Your task to perform on an android device: Open Reddit.com Image 0: 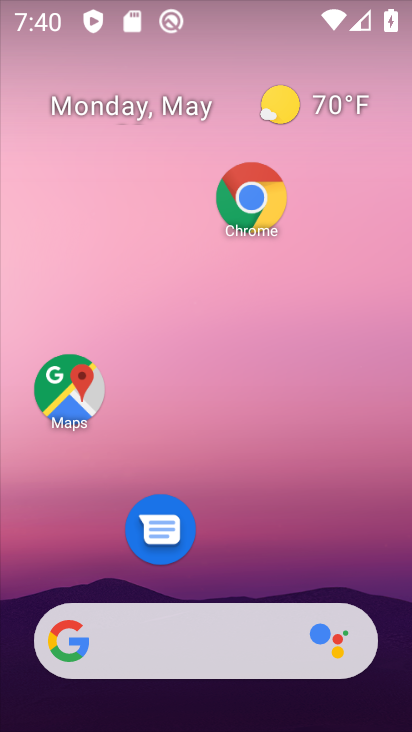
Step 0: click (242, 194)
Your task to perform on an android device: Open Reddit.com Image 1: 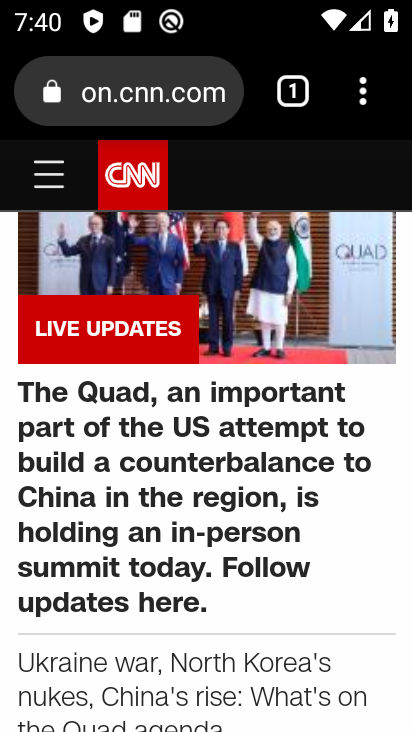
Step 1: click (284, 82)
Your task to perform on an android device: Open Reddit.com Image 2: 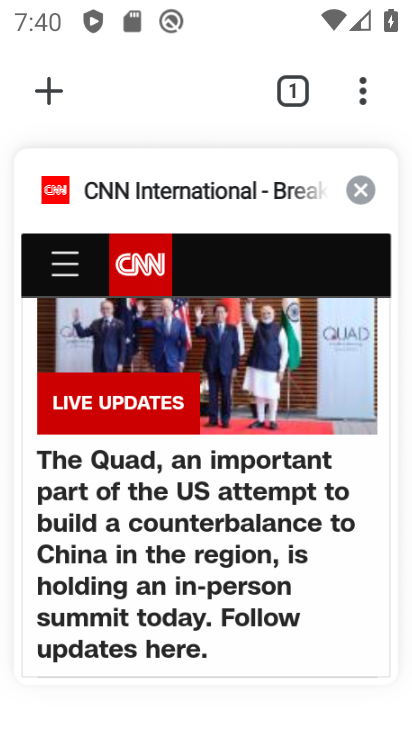
Step 2: click (358, 188)
Your task to perform on an android device: Open Reddit.com Image 3: 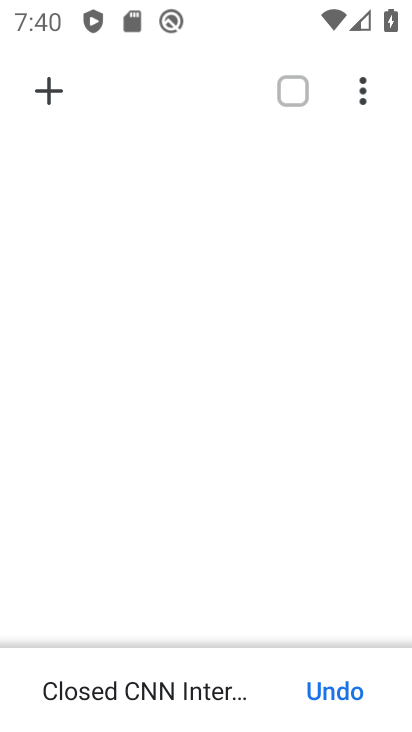
Step 3: click (53, 94)
Your task to perform on an android device: Open Reddit.com Image 4: 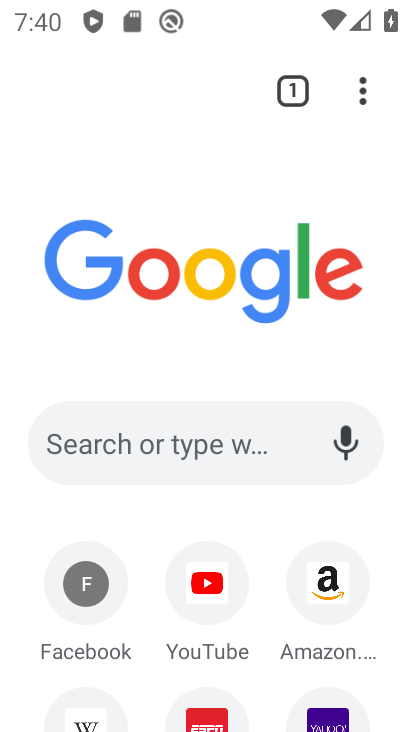
Step 4: click (151, 429)
Your task to perform on an android device: Open Reddit.com Image 5: 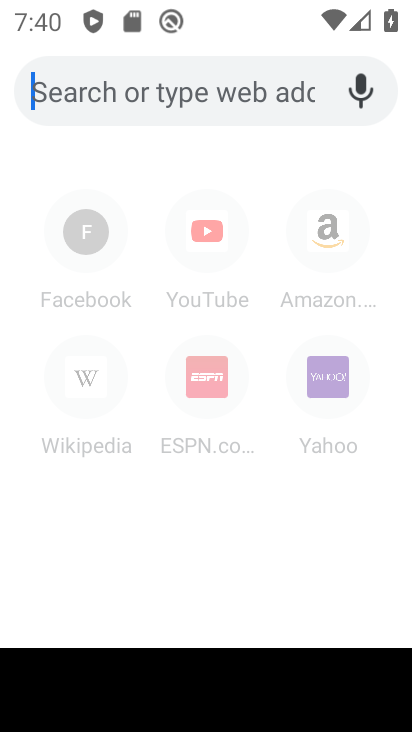
Step 5: type "reddit"
Your task to perform on an android device: Open Reddit.com Image 6: 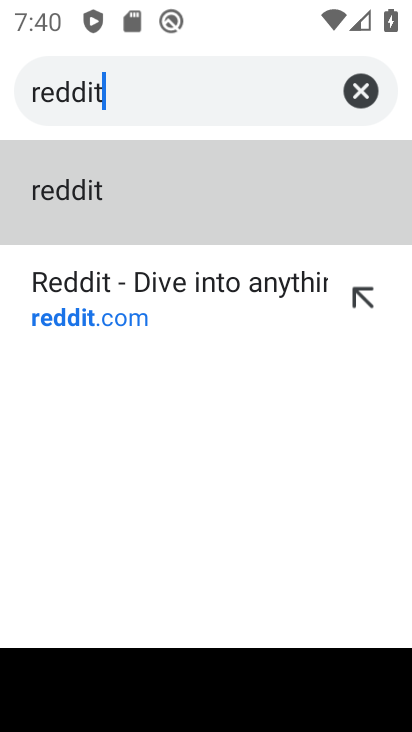
Step 6: type ""
Your task to perform on an android device: Open Reddit.com Image 7: 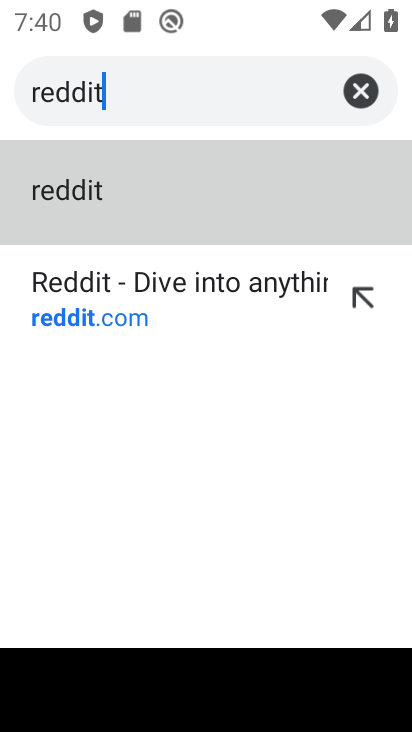
Step 7: click (116, 285)
Your task to perform on an android device: Open Reddit.com Image 8: 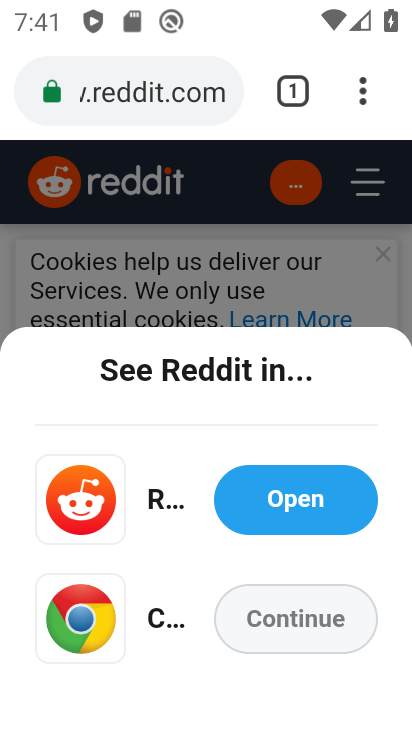
Step 8: click (303, 612)
Your task to perform on an android device: Open Reddit.com Image 9: 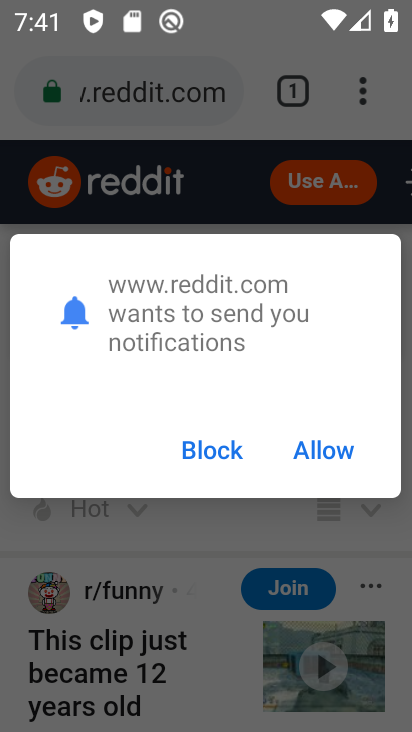
Step 9: click (217, 443)
Your task to perform on an android device: Open Reddit.com Image 10: 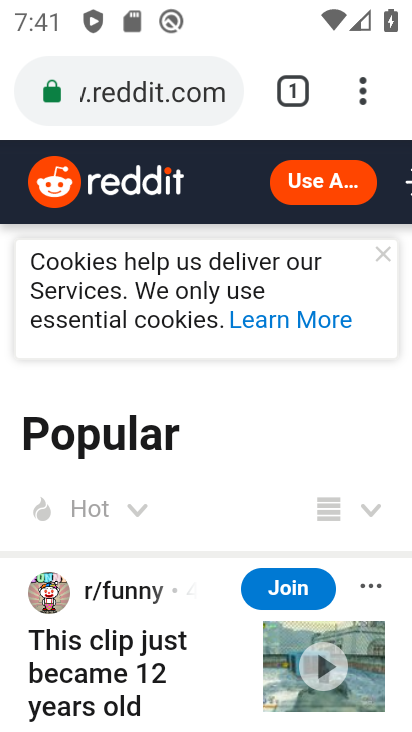
Step 10: task complete